Your task to perform on an android device: toggle priority inbox in the gmail app Image 0: 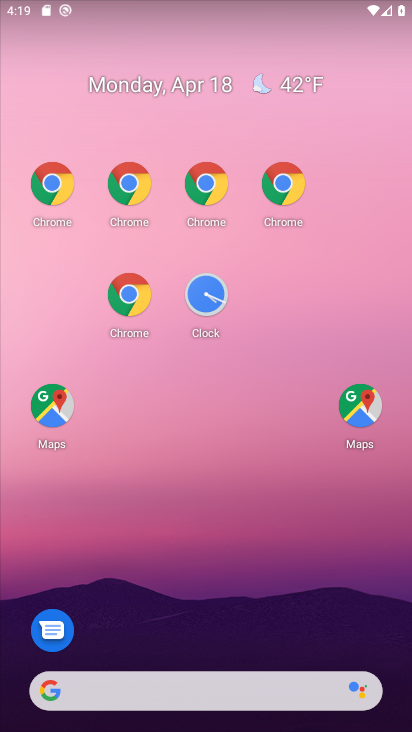
Step 0: drag from (325, 642) to (196, 194)
Your task to perform on an android device: toggle priority inbox in the gmail app Image 1: 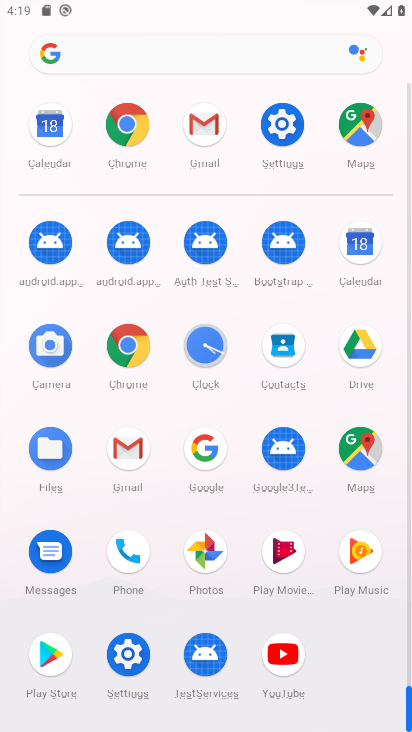
Step 1: click (211, 131)
Your task to perform on an android device: toggle priority inbox in the gmail app Image 2: 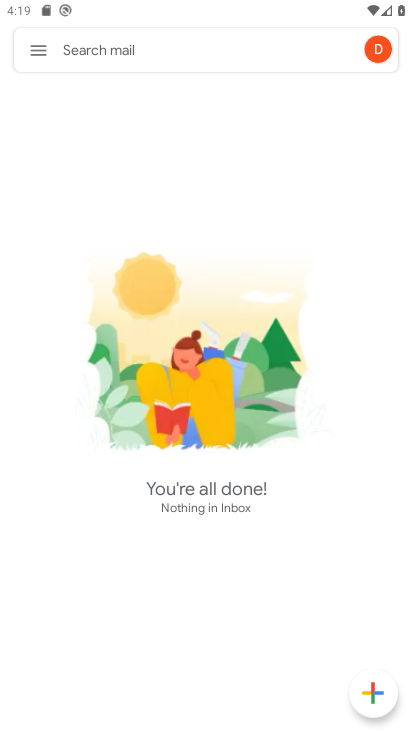
Step 2: click (211, 134)
Your task to perform on an android device: toggle priority inbox in the gmail app Image 3: 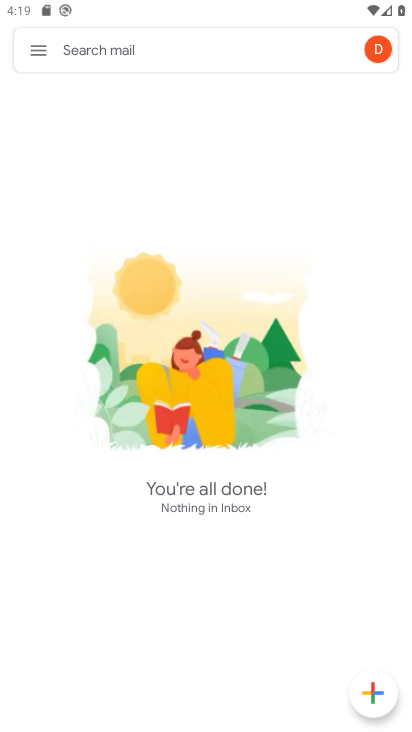
Step 3: click (43, 54)
Your task to perform on an android device: toggle priority inbox in the gmail app Image 4: 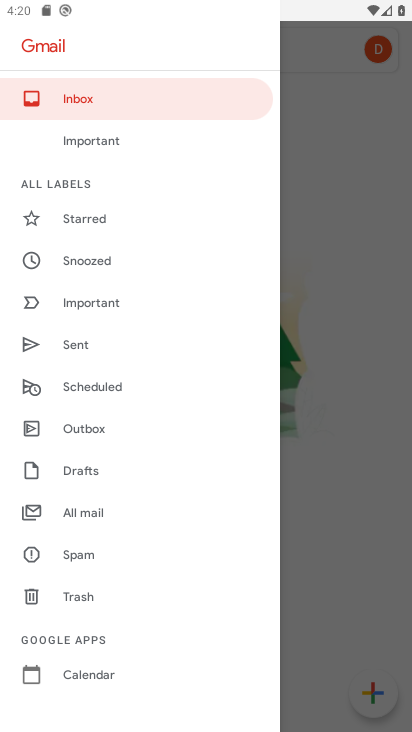
Step 4: drag from (131, 581) to (135, 158)
Your task to perform on an android device: toggle priority inbox in the gmail app Image 5: 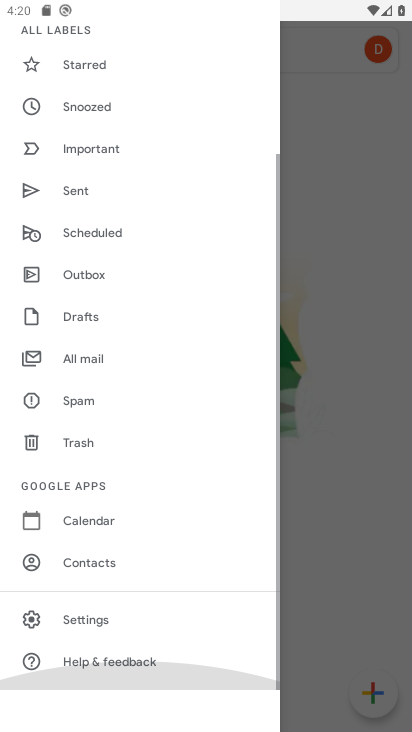
Step 5: drag from (166, 501) to (166, 244)
Your task to perform on an android device: toggle priority inbox in the gmail app Image 6: 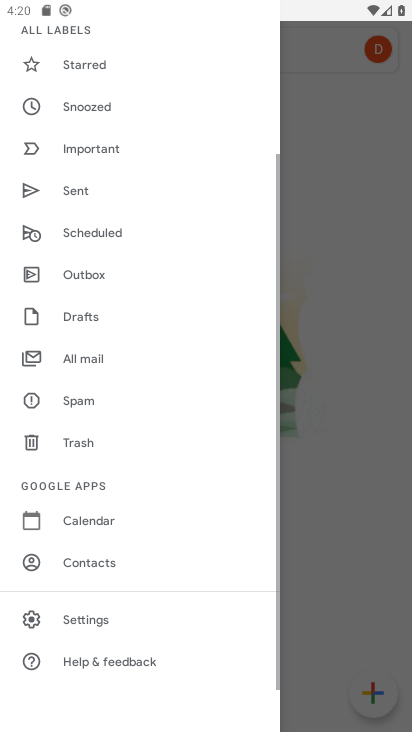
Step 6: click (87, 612)
Your task to perform on an android device: toggle priority inbox in the gmail app Image 7: 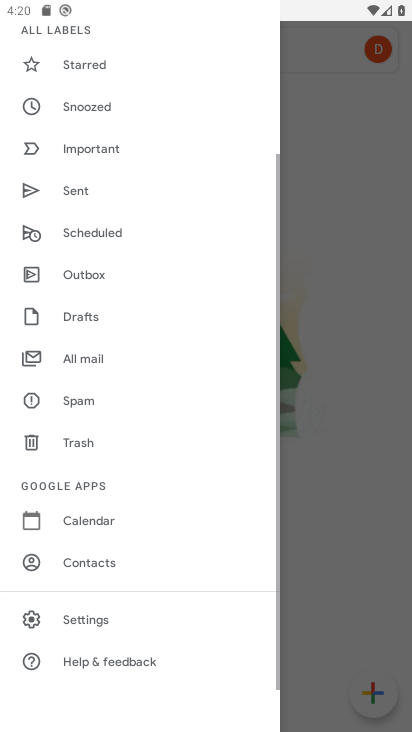
Step 7: click (95, 622)
Your task to perform on an android device: toggle priority inbox in the gmail app Image 8: 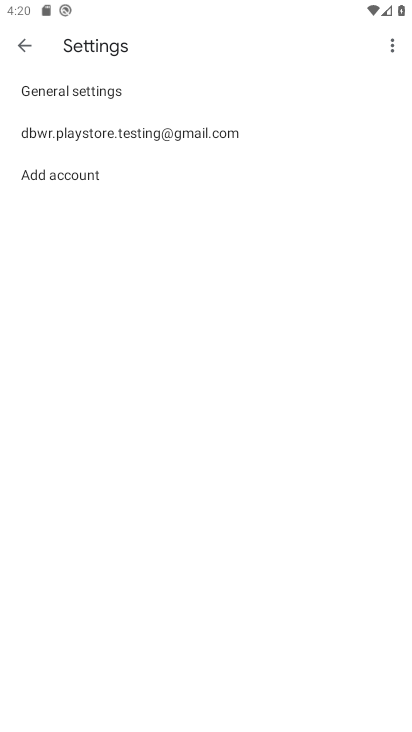
Step 8: click (124, 131)
Your task to perform on an android device: toggle priority inbox in the gmail app Image 9: 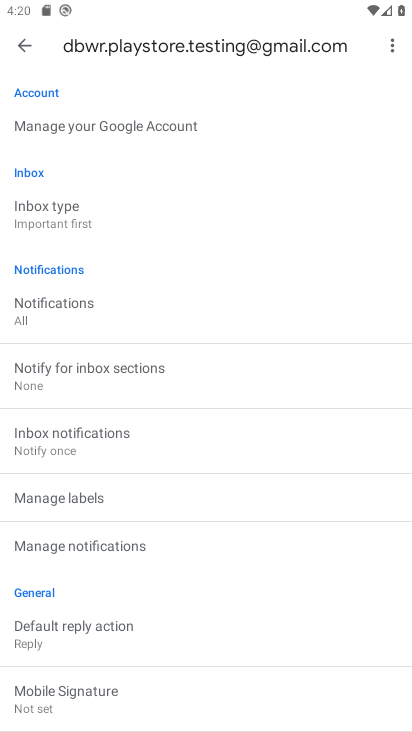
Step 9: click (44, 214)
Your task to perform on an android device: toggle priority inbox in the gmail app Image 10: 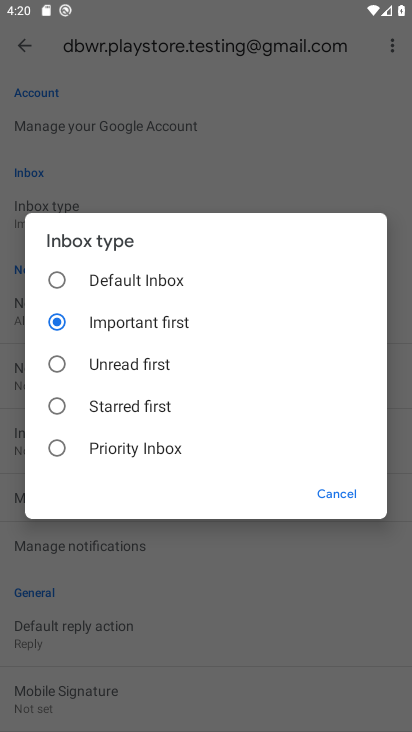
Step 10: click (55, 453)
Your task to perform on an android device: toggle priority inbox in the gmail app Image 11: 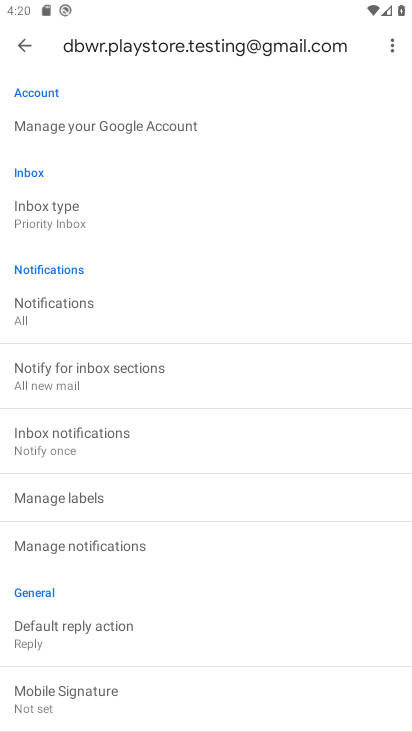
Step 11: task complete